Your task to perform on an android device: turn off data saver in the chrome app Image 0: 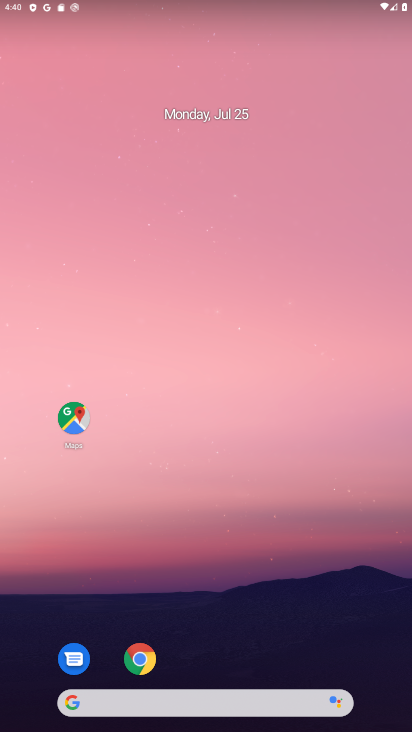
Step 0: click (140, 670)
Your task to perform on an android device: turn off data saver in the chrome app Image 1: 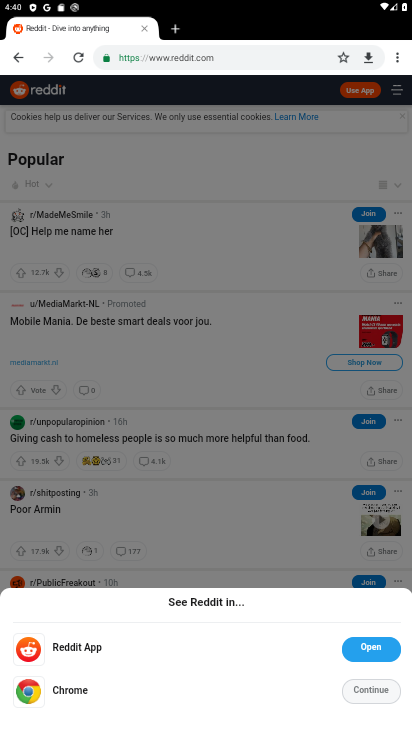
Step 1: click (396, 52)
Your task to perform on an android device: turn off data saver in the chrome app Image 2: 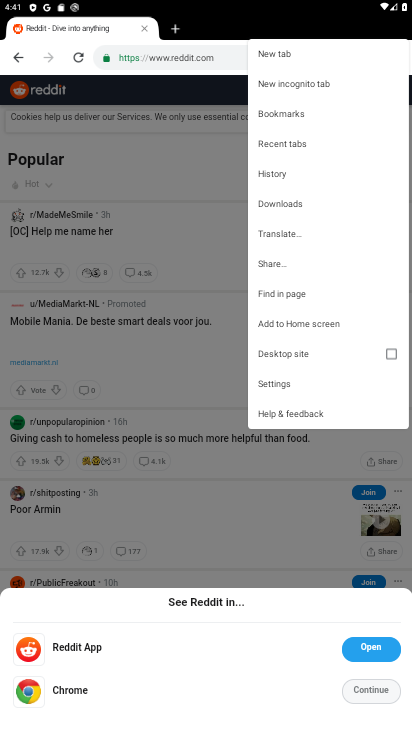
Step 2: click (271, 381)
Your task to perform on an android device: turn off data saver in the chrome app Image 3: 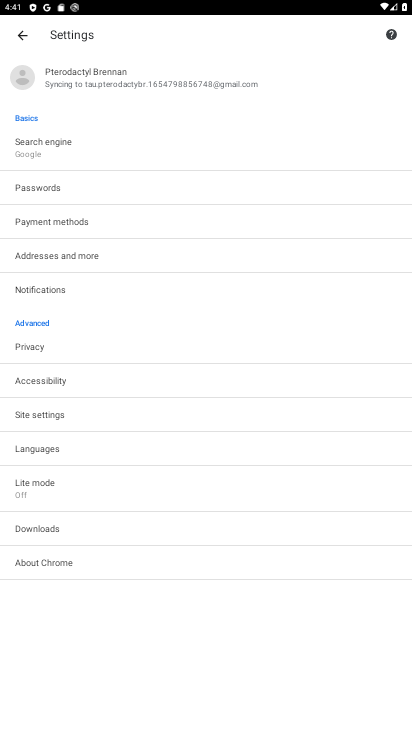
Step 3: click (35, 488)
Your task to perform on an android device: turn off data saver in the chrome app Image 4: 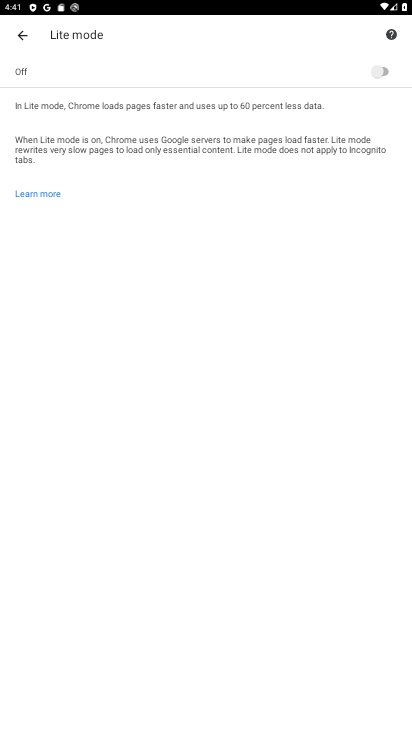
Step 4: task complete